Your task to perform on an android device: Open wifi settings Image 0: 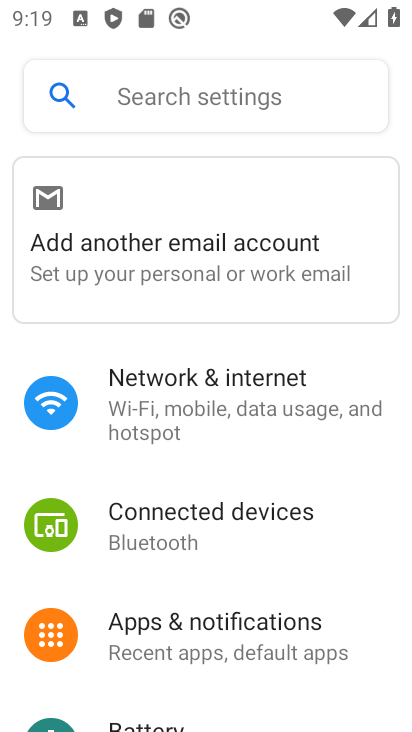
Step 0: click (209, 404)
Your task to perform on an android device: Open wifi settings Image 1: 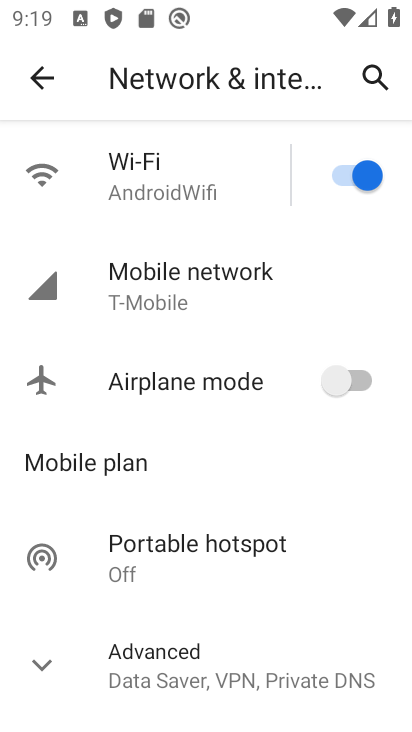
Step 1: click (192, 179)
Your task to perform on an android device: Open wifi settings Image 2: 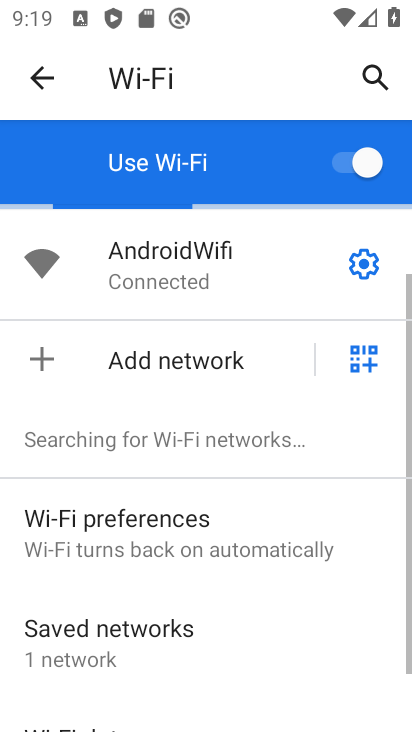
Step 2: click (375, 259)
Your task to perform on an android device: Open wifi settings Image 3: 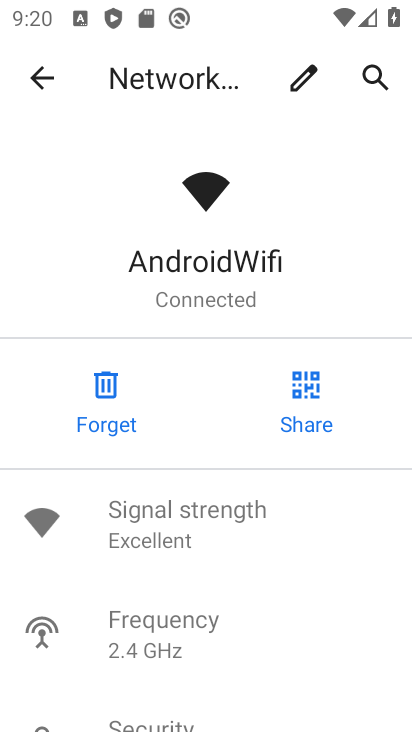
Step 3: task complete